Your task to perform on an android device: Go to notification settings Image 0: 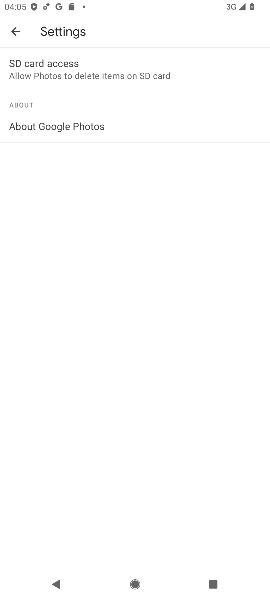
Step 0: press home button
Your task to perform on an android device: Go to notification settings Image 1: 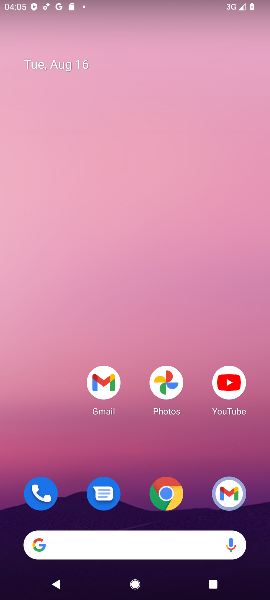
Step 1: drag from (67, 489) to (71, 159)
Your task to perform on an android device: Go to notification settings Image 2: 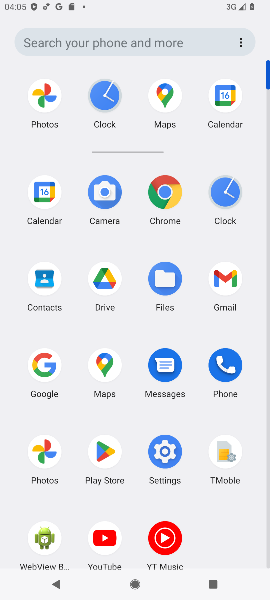
Step 2: click (159, 459)
Your task to perform on an android device: Go to notification settings Image 3: 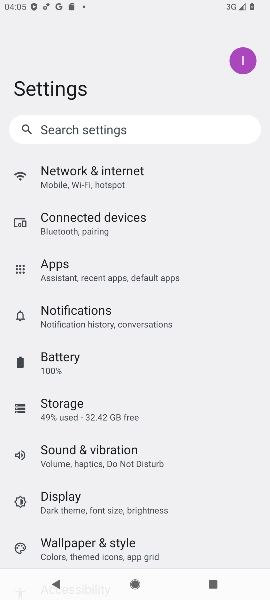
Step 3: task complete